Your task to perform on an android device: empty trash in the gmail app Image 0: 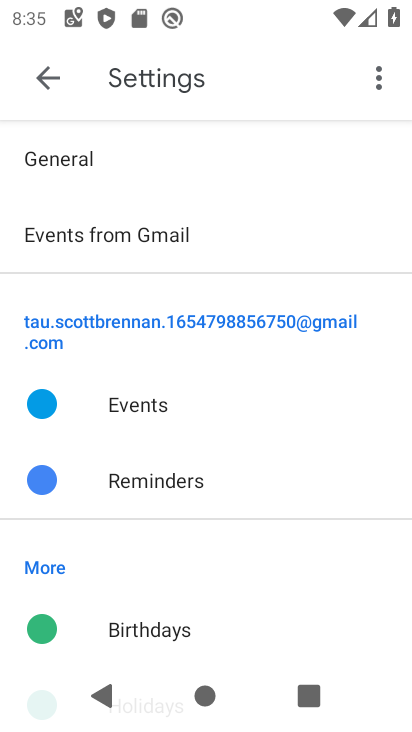
Step 0: press home button
Your task to perform on an android device: empty trash in the gmail app Image 1: 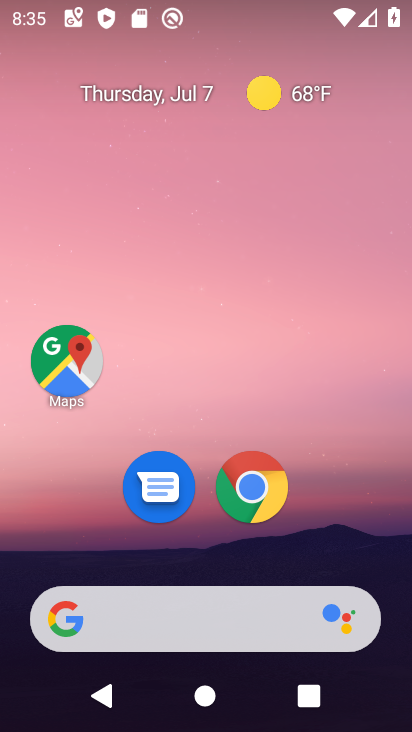
Step 1: drag from (208, 568) to (410, 26)
Your task to perform on an android device: empty trash in the gmail app Image 2: 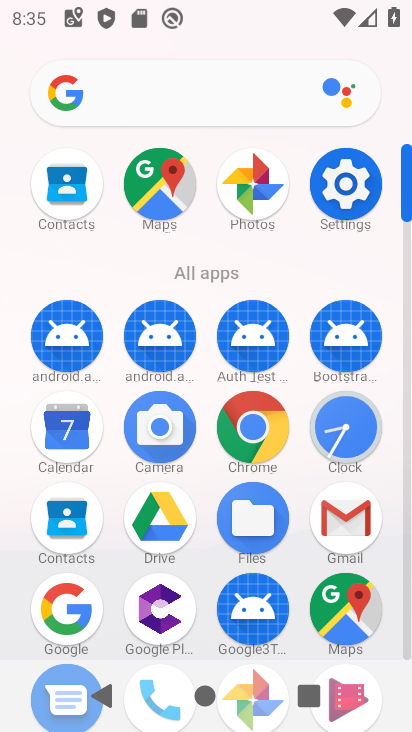
Step 2: click (351, 515)
Your task to perform on an android device: empty trash in the gmail app Image 3: 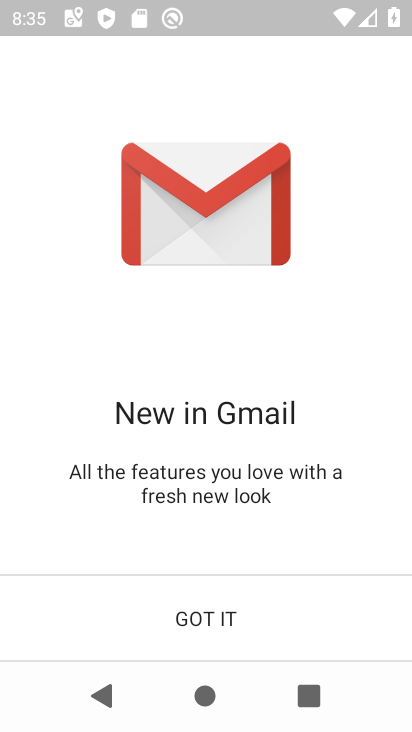
Step 3: click (201, 617)
Your task to perform on an android device: empty trash in the gmail app Image 4: 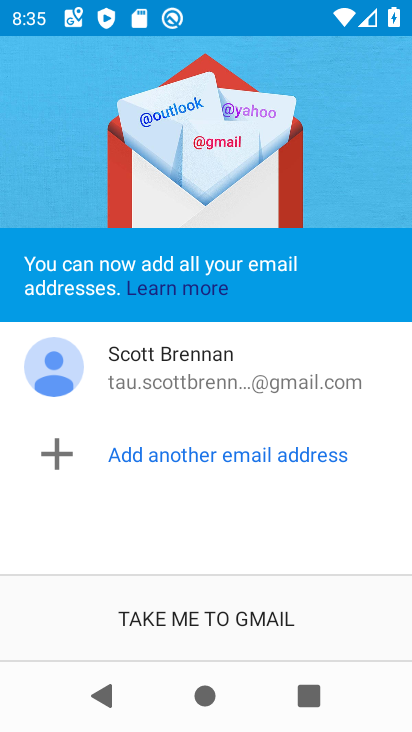
Step 4: click (219, 609)
Your task to perform on an android device: empty trash in the gmail app Image 5: 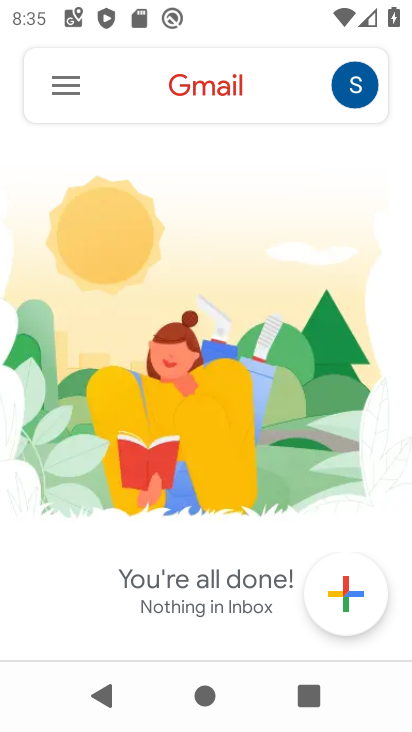
Step 5: click (58, 83)
Your task to perform on an android device: empty trash in the gmail app Image 6: 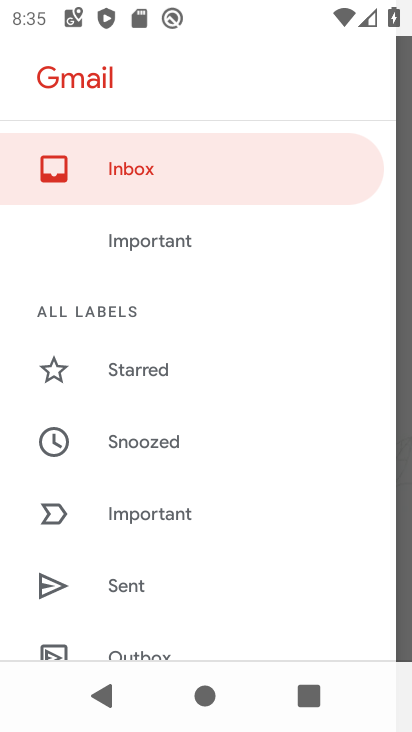
Step 6: drag from (175, 449) to (157, 6)
Your task to perform on an android device: empty trash in the gmail app Image 7: 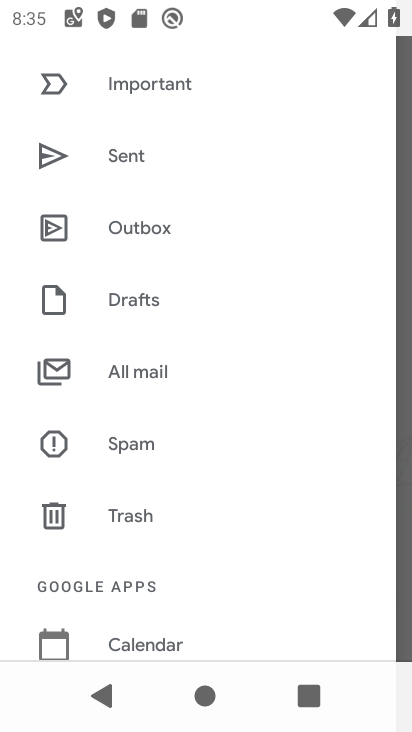
Step 7: click (145, 516)
Your task to perform on an android device: empty trash in the gmail app Image 8: 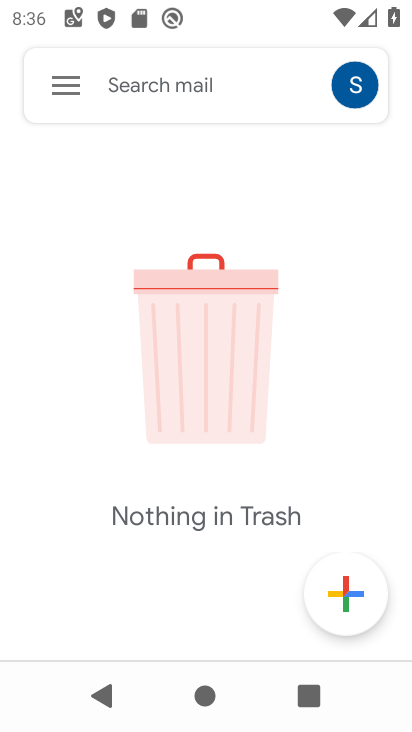
Step 8: task complete